Your task to perform on an android device: turn on sleep mode Image 0: 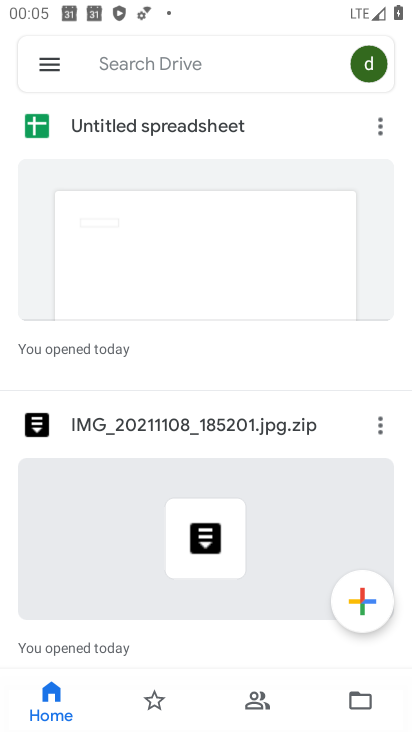
Step 0: press home button
Your task to perform on an android device: turn on sleep mode Image 1: 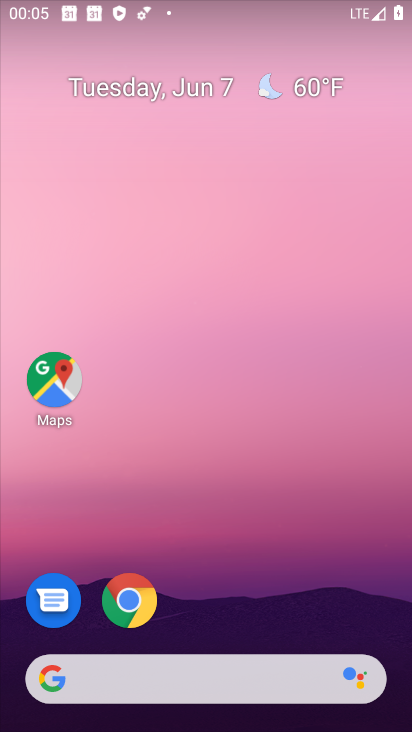
Step 1: drag from (213, 725) to (225, 199)
Your task to perform on an android device: turn on sleep mode Image 2: 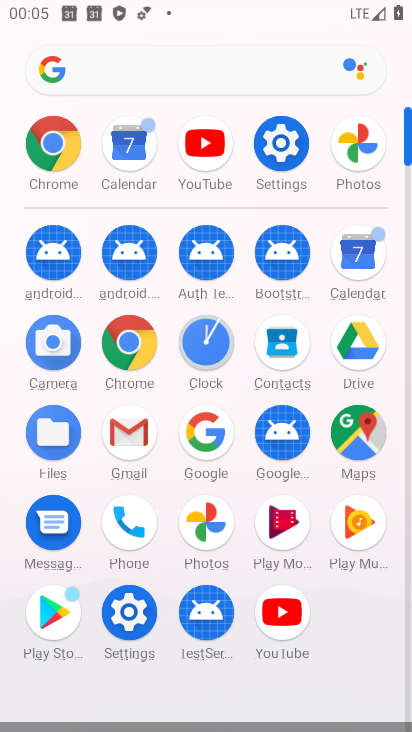
Step 2: click (278, 147)
Your task to perform on an android device: turn on sleep mode Image 3: 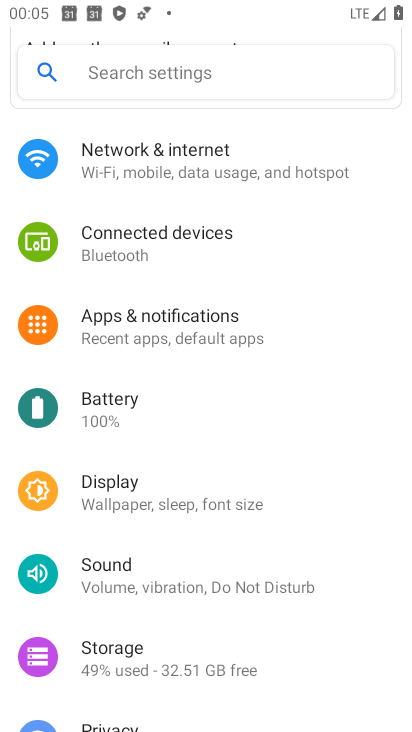
Step 3: click (135, 500)
Your task to perform on an android device: turn on sleep mode Image 4: 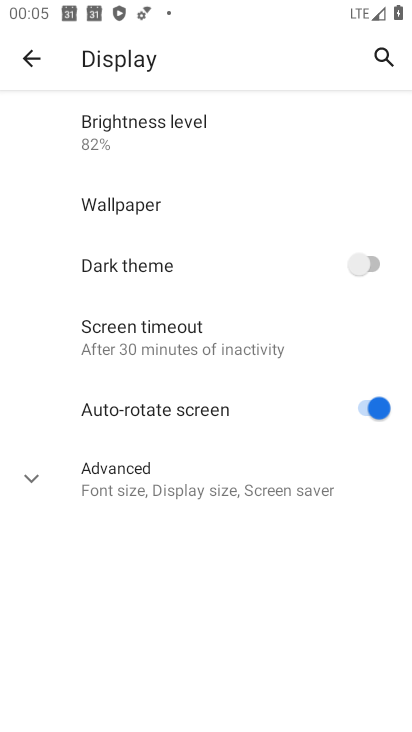
Step 4: click (31, 58)
Your task to perform on an android device: turn on sleep mode Image 5: 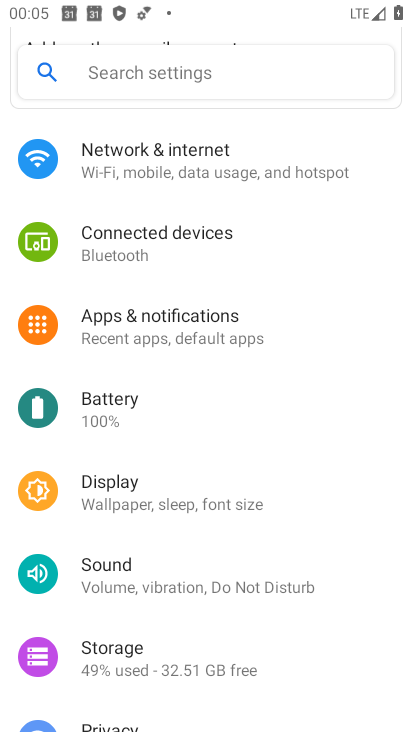
Step 5: task complete